Your task to perform on an android device: Open the web browser Image 0: 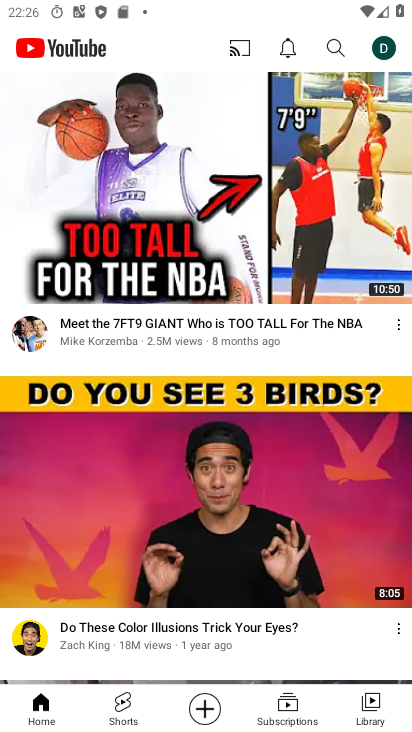
Step 0: press home button
Your task to perform on an android device: Open the web browser Image 1: 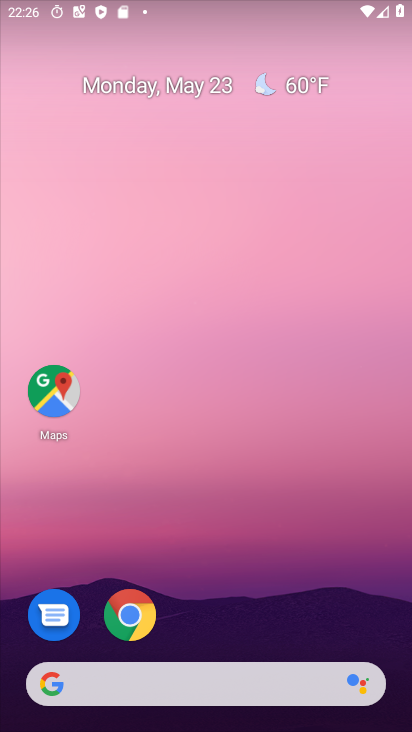
Step 1: drag from (212, 605) to (274, 83)
Your task to perform on an android device: Open the web browser Image 2: 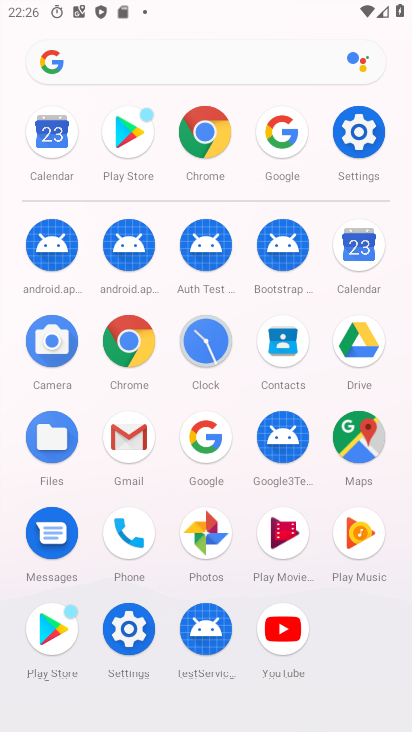
Step 2: click (219, 437)
Your task to perform on an android device: Open the web browser Image 3: 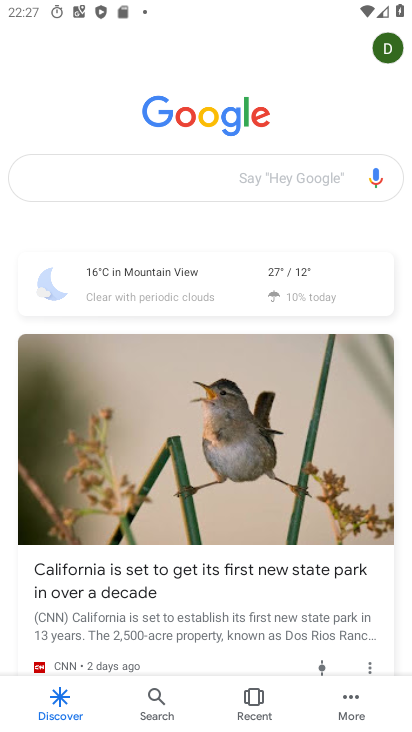
Step 3: task complete